Your task to perform on an android device: snooze an email in the gmail app Image 0: 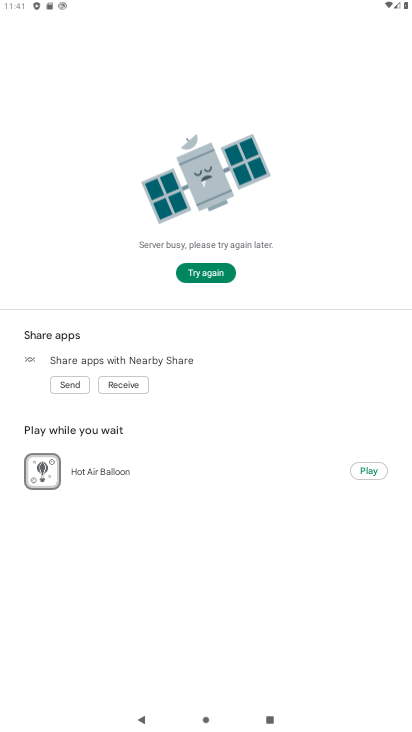
Step 0: press home button
Your task to perform on an android device: snooze an email in the gmail app Image 1: 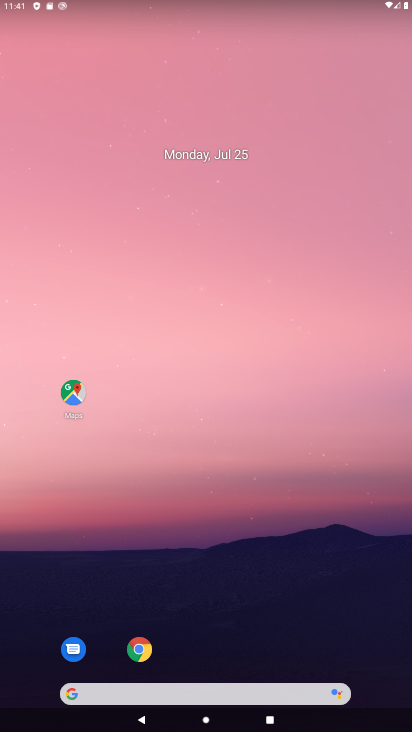
Step 1: drag from (214, 666) to (180, 119)
Your task to perform on an android device: snooze an email in the gmail app Image 2: 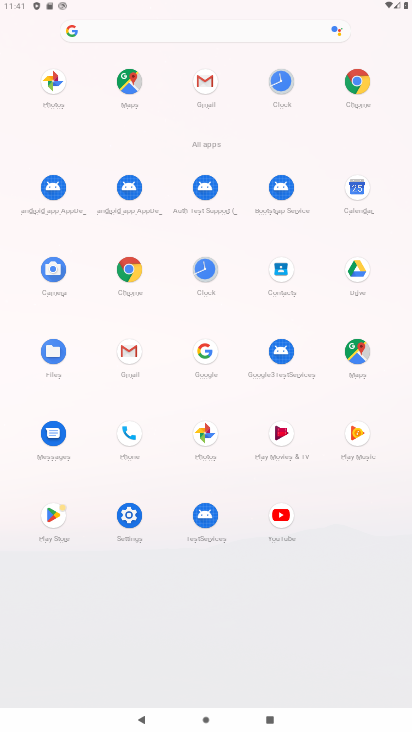
Step 2: click (139, 349)
Your task to perform on an android device: snooze an email in the gmail app Image 3: 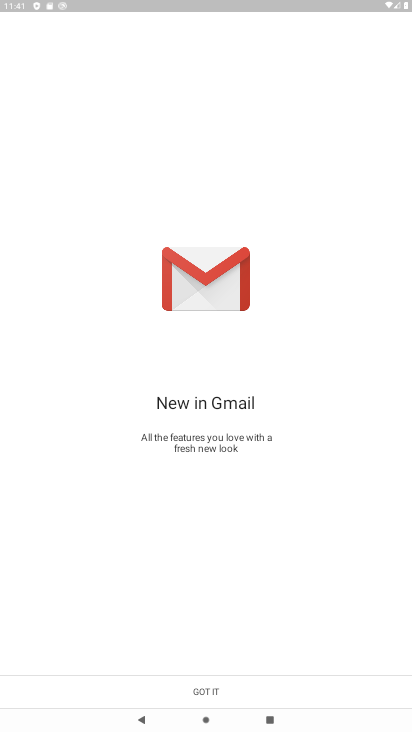
Step 3: click (238, 685)
Your task to perform on an android device: snooze an email in the gmail app Image 4: 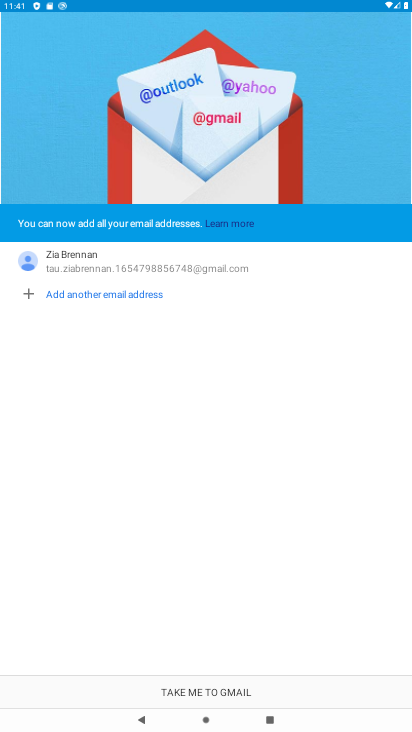
Step 4: click (205, 689)
Your task to perform on an android device: snooze an email in the gmail app Image 5: 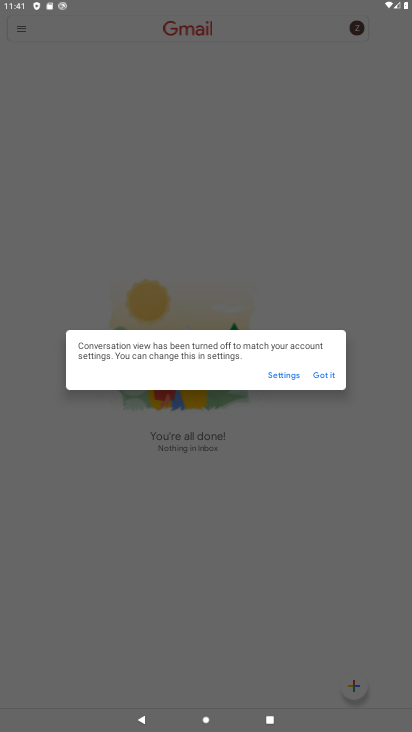
Step 5: click (325, 373)
Your task to perform on an android device: snooze an email in the gmail app Image 6: 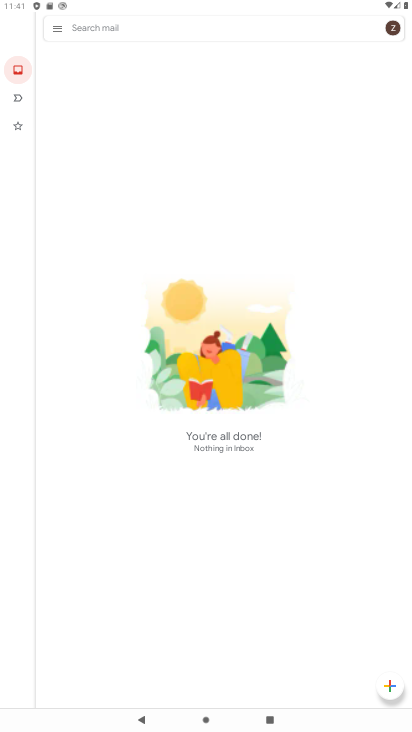
Step 6: task complete